Your task to perform on an android device: turn off translation in the chrome app Image 0: 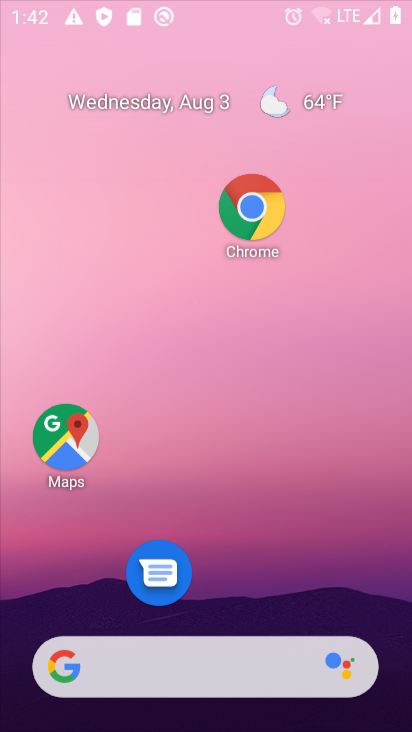
Step 0: drag from (216, 604) to (277, 164)
Your task to perform on an android device: turn off translation in the chrome app Image 1: 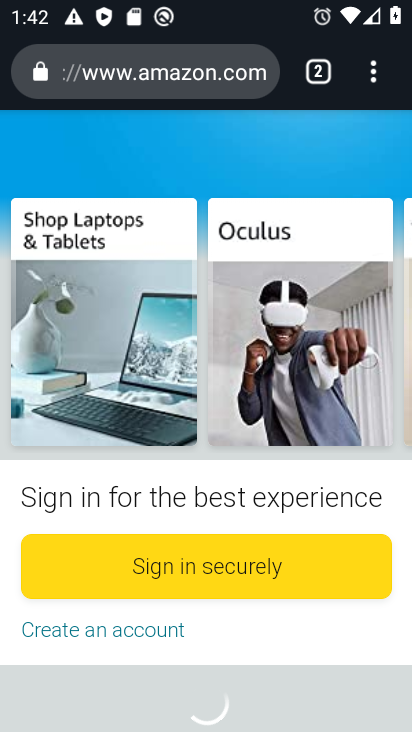
Step 1: press home button
Your task to perform on an android device: turn off translation in the chrome app Image 2: 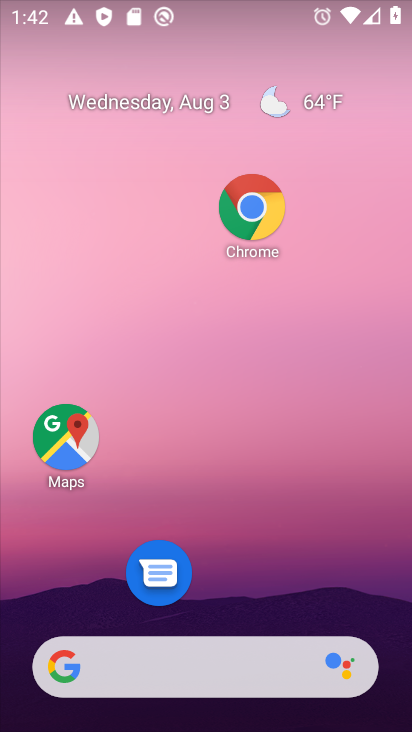
Step 2: drag from (228, 628) to (314, 175)
Your task to perform on an android device: turn off translation in the chrome app Image 3: 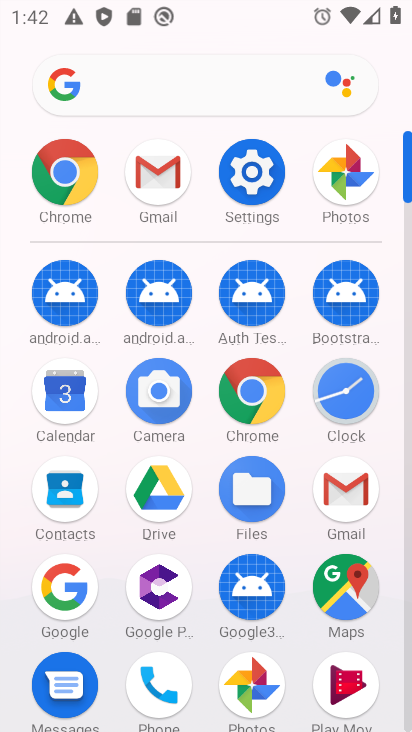
Step 3: click (90, 178)
Your task to perform on an android device: turn off translation in the chrome app Image 4: 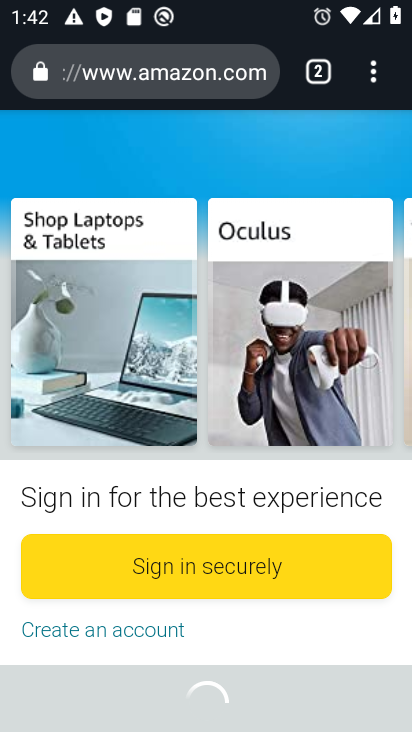
Step 4: click (378, 81)
Your task to perform on an android device: turn off translation in the chrome app Image 5: 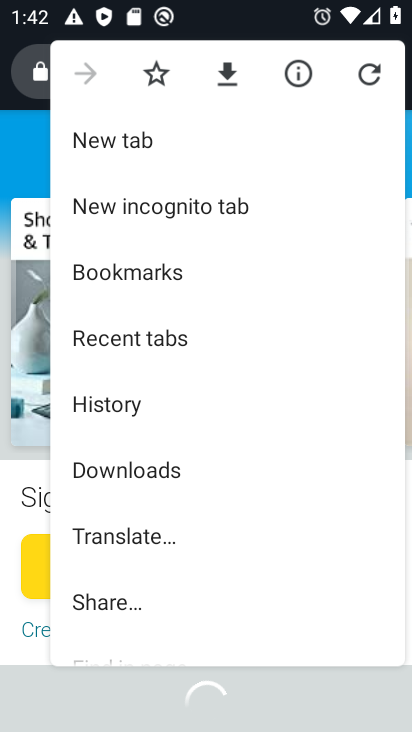
Step 5: click (147, 534)
Your task to perform on an android device: turn off translation in the chrome app Image 6: 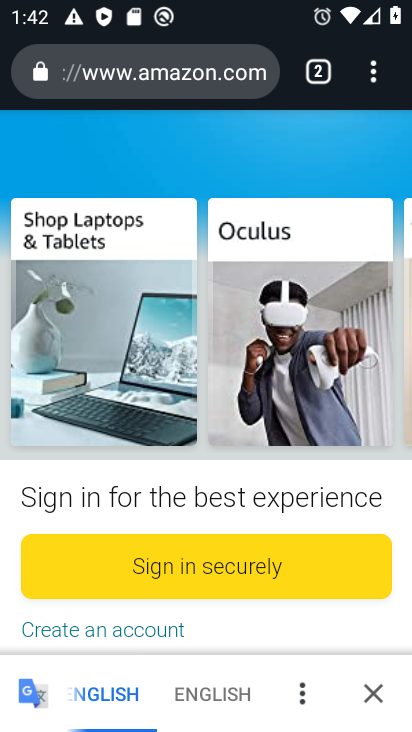
Step 6: drag from (206, 590) to (232, 620)
Your task to perform on an android device: turn off translation in the chrome app Image 7: 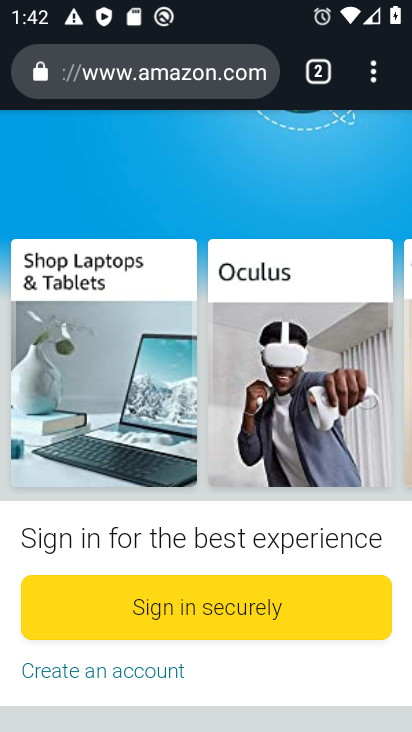
Step 7: click (378, 84)
Your task to perform on an android device: turn off translation in the chrome app Image 8: 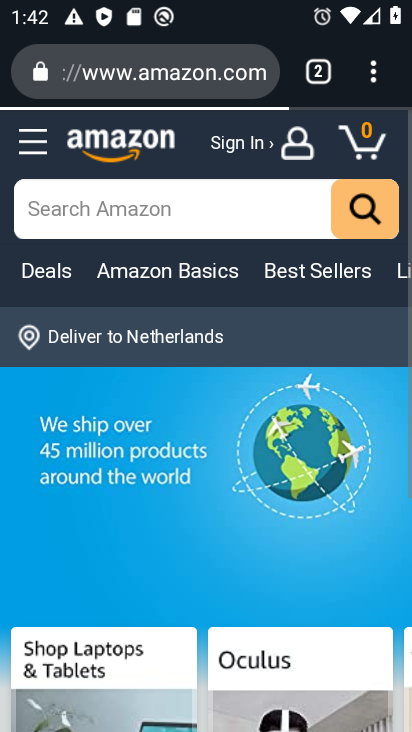
Step 8: click (381, 85)
Your task to perform on an android device: turn off translation in the chrome app Image 9: 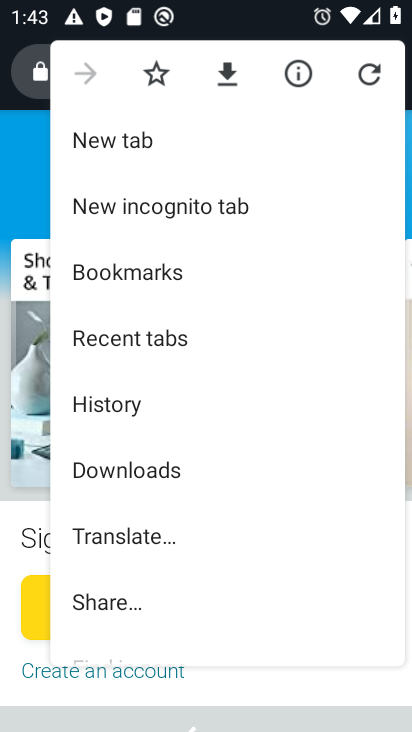
Step 9: drag from (172, 540) to (248, 333)
Your task to perform on an android device: turn off translation in the chrome app Image 10: 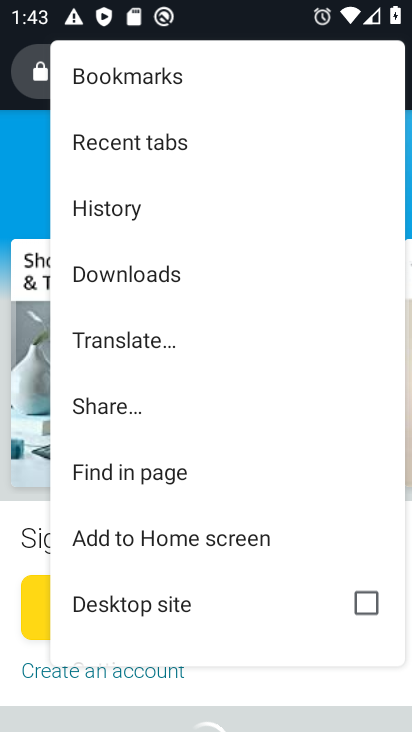
Step 10: click (174, 344)
Your task to perform on an android device: turn off translation in the chrome app Image 11: 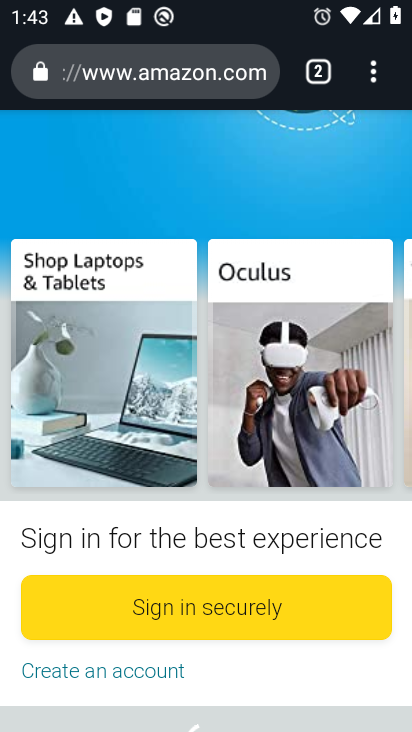
Step 11: task complete